Your task to perform on an android device: Open Google Maps and go to "Timeline" Image 0: 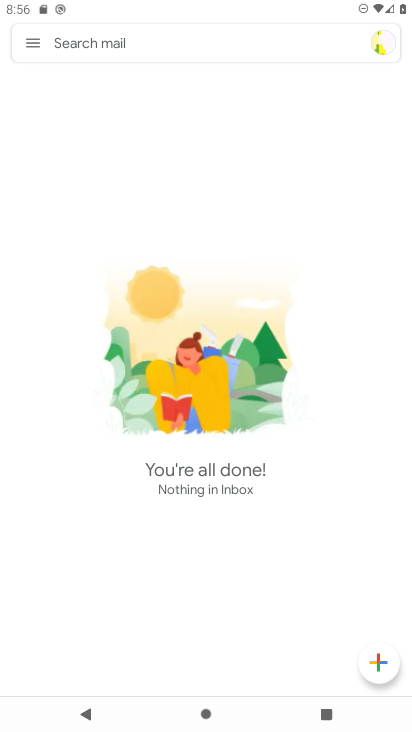
Step 0: press home button
Your task to perform on an android device: Open Google Maps and go to "Timeline" Image 1: 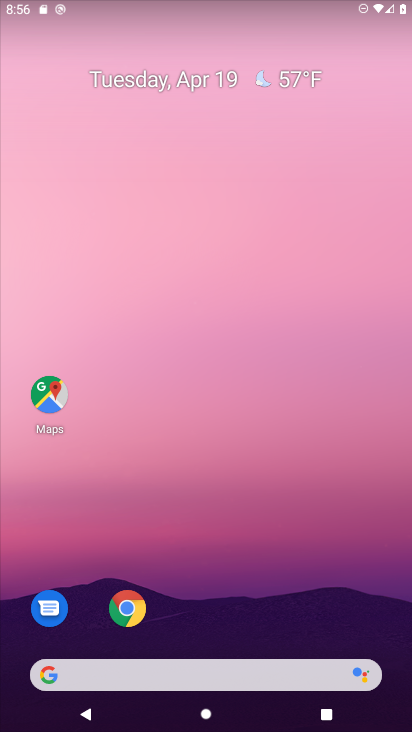
Step 1: click (48, 394)
Your task to perform on an android device: Open Google Maps and go to "Timeline" Image 2: 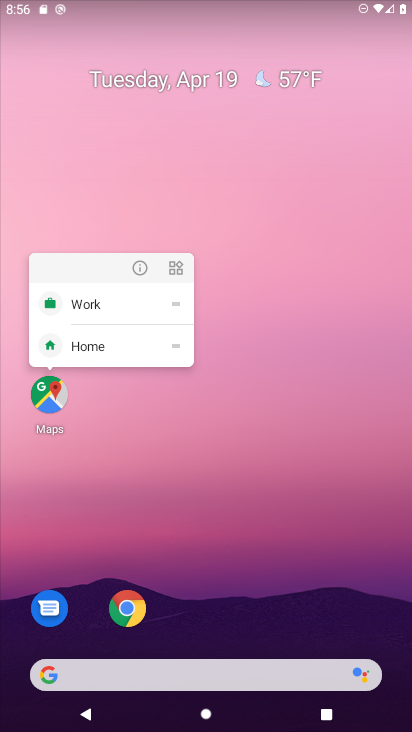
Step 2: click (48, 394)
Your task to perform on an android device: Open Google Maps and go to "Timeline" Image 3: 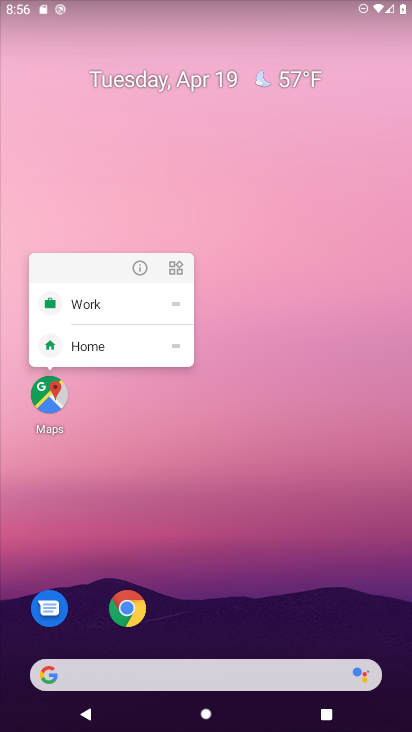
Step 3: click (48, 394)
Your task to perform on an android device: Open Google Maps and go to "Timeline" Image 4: 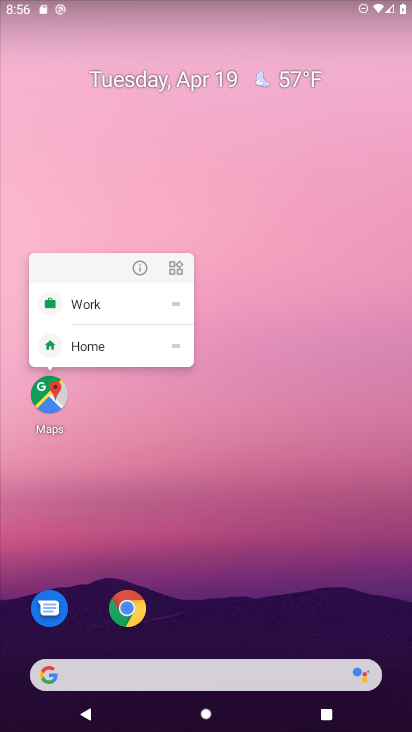
Step 4: click (204, 439)
Your task to perform on an android device: Open Google Maps and go to "Timeline" Image 5: 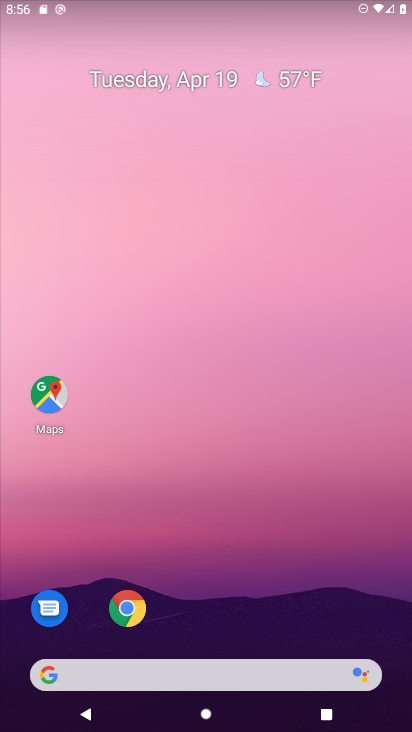
Step 5: click (49, 396)
Your task to perform on an android device: Open Google Maps and go to "Timeline" Image 6: 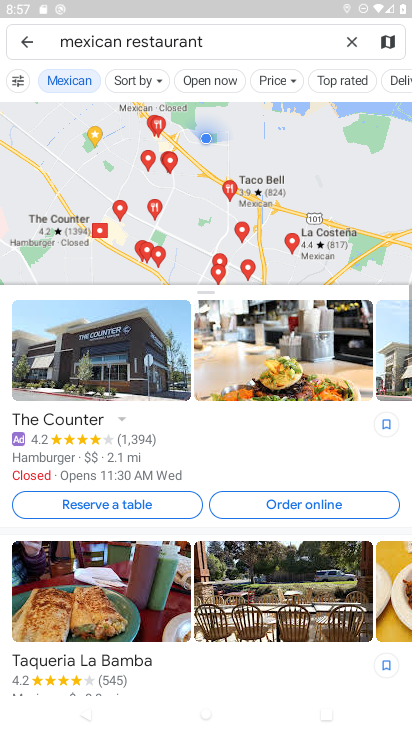
Step 6: press back button
Your task to perform on an android device: Open Google Maps and go to "Timeline" Image 7: 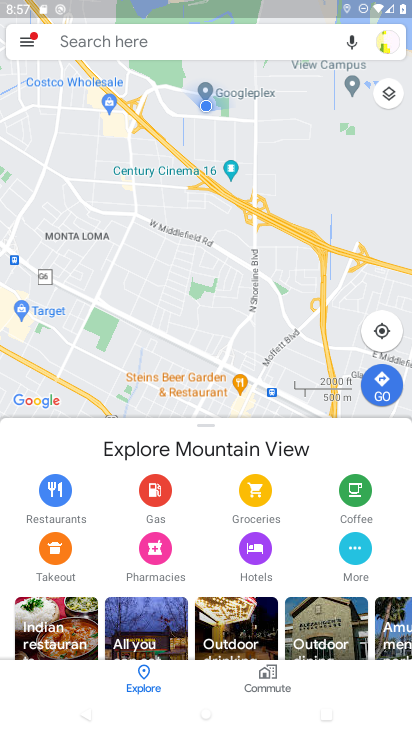
Step 7: click (26, 42)
Your task to perform on an android device: Open Google Maps and go to "Timeline" Image 8: 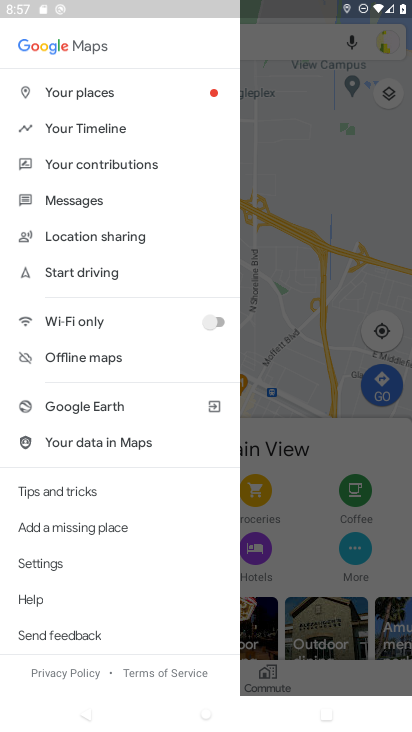
Step 8: click (80, 126)
Your task to perform on an android device: Open Google Maps and go to "Timeline" Image 9: 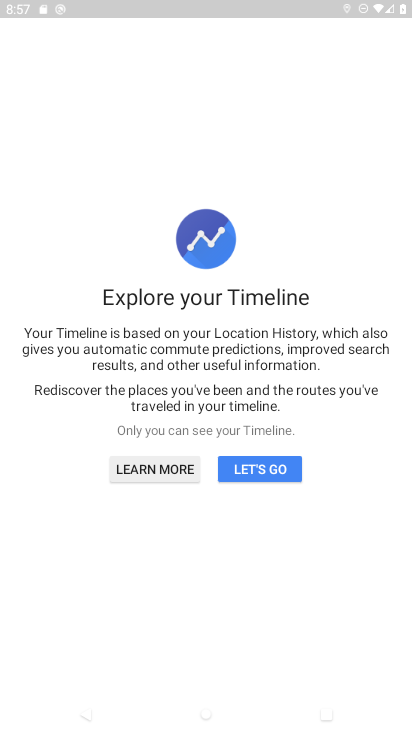
Step 9: click (266, 467)
Your task to perform on an android device: Open Google Maps and go to "Timeline" Image 10: 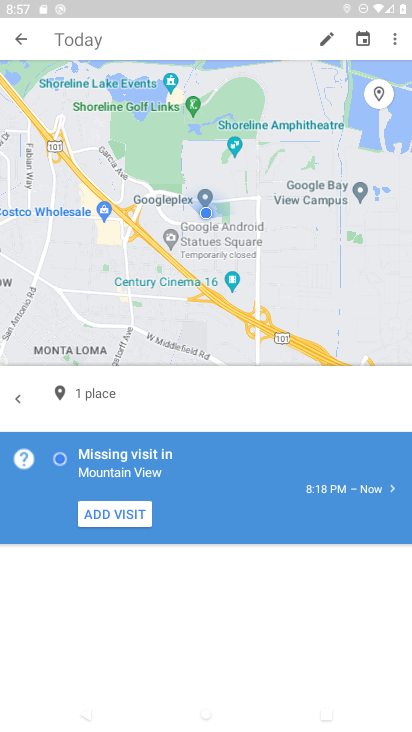
Step 10: task complete